Your task to perform on an android device: clear history in the chrome app Image 0: 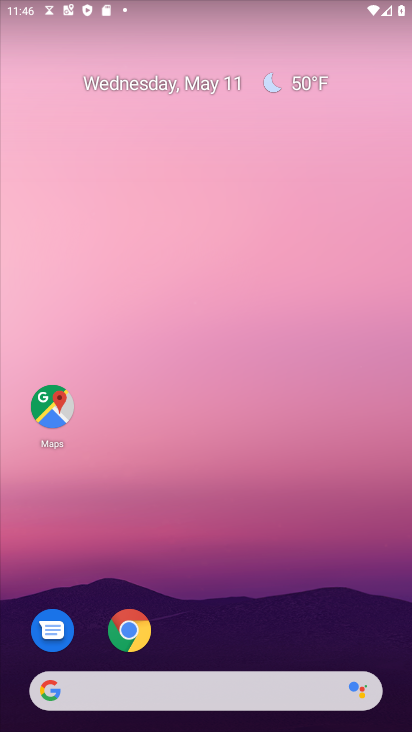
Step 0: click (131, 629)
Your task to perform on an android device: clear history in the chrome app Image 1: 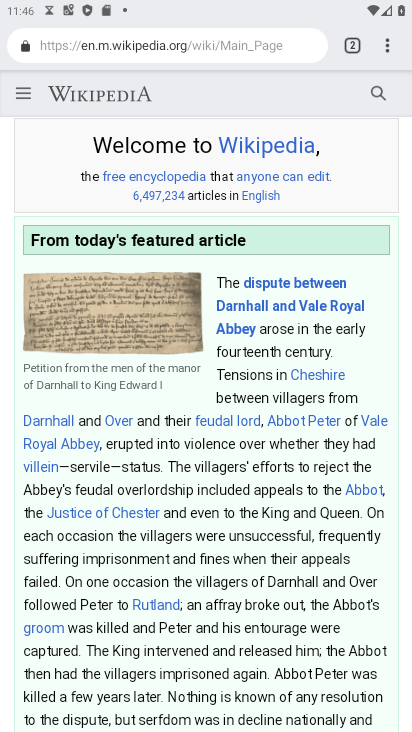
Step 1: click (388, 53)
Your task to perform on an android device: clear history in the chrome app Image 2: 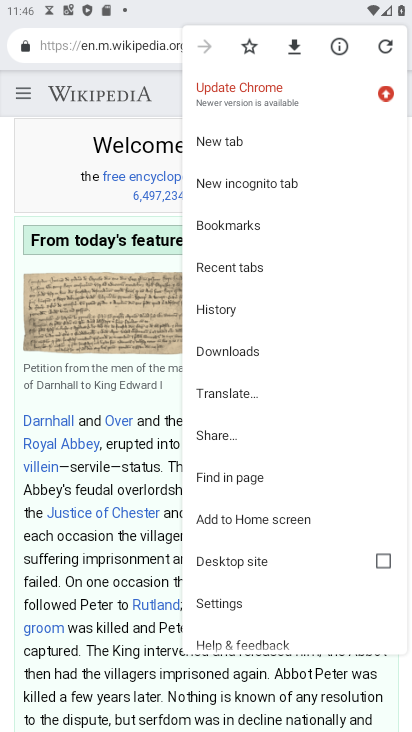
Step 2: click (222, 305)
Your task to perform on an android device: clear history in the chrome app Image 3: 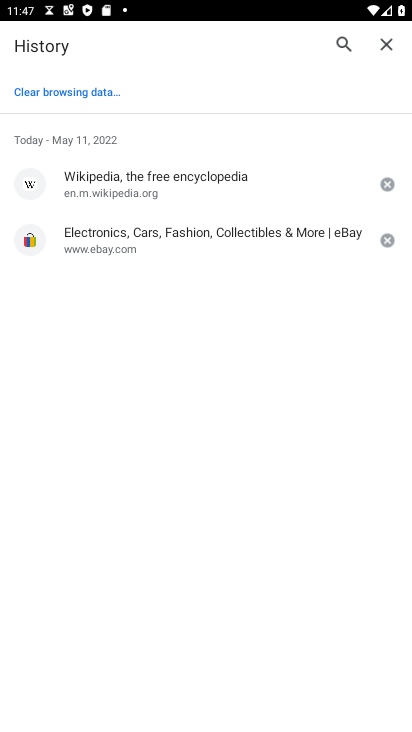
Step 3: click (45, 94)
Your task to perform on an android device: clear history in the chrome app Image 4: 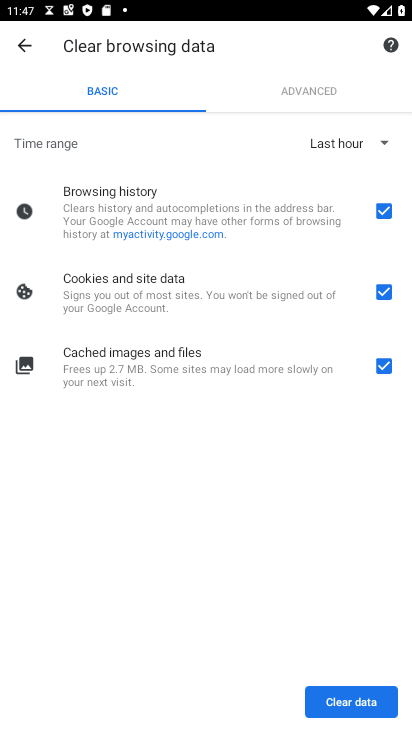
Step 4: click (383, 352)
Your task to perform on an android device: clear history in the chrome app Image 5: 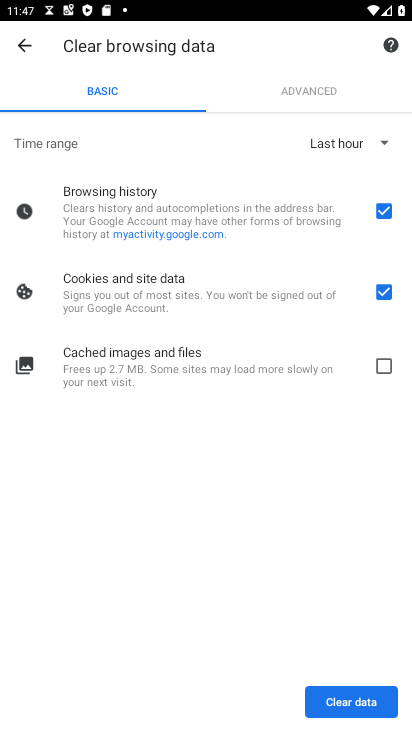
Step 5: click (382, 290)
Your task to perform on an android device: clear history in the chrome app Image 6: 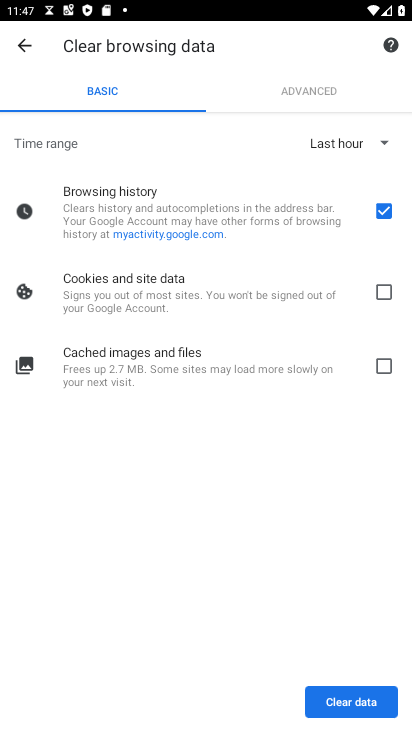
Step 6: click (351, 692)
Your task to perform on an android device: clear history in the chrome app Image 7: 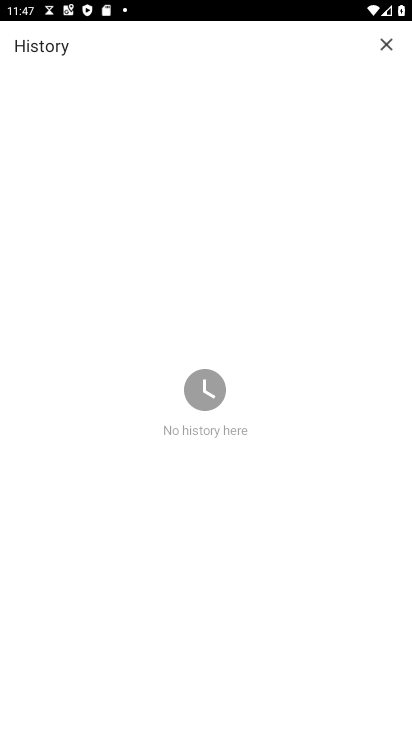
Step 7: task complete